Your task to perform on an android device: Clear the cart on bestbuy.com. Search for "duracell triple a" on bestbuy.com, select the first entry, and add it to the cart. Image 0: 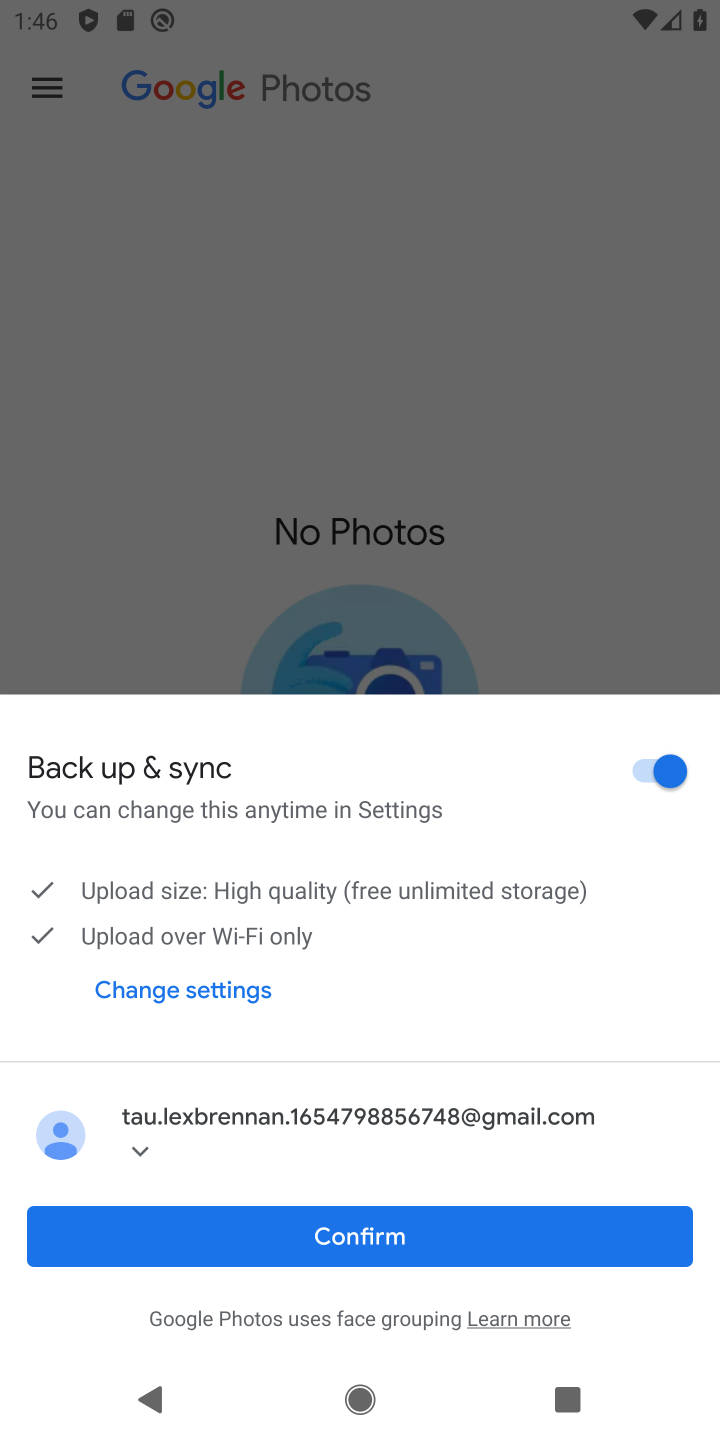
Step 0: press home button
Your task to perform on an android device: Clear the cart on bestbuy.com. Search for "duracell triple a" on bestbuy.com, select the first entry, and add it to the cart. Image 1: 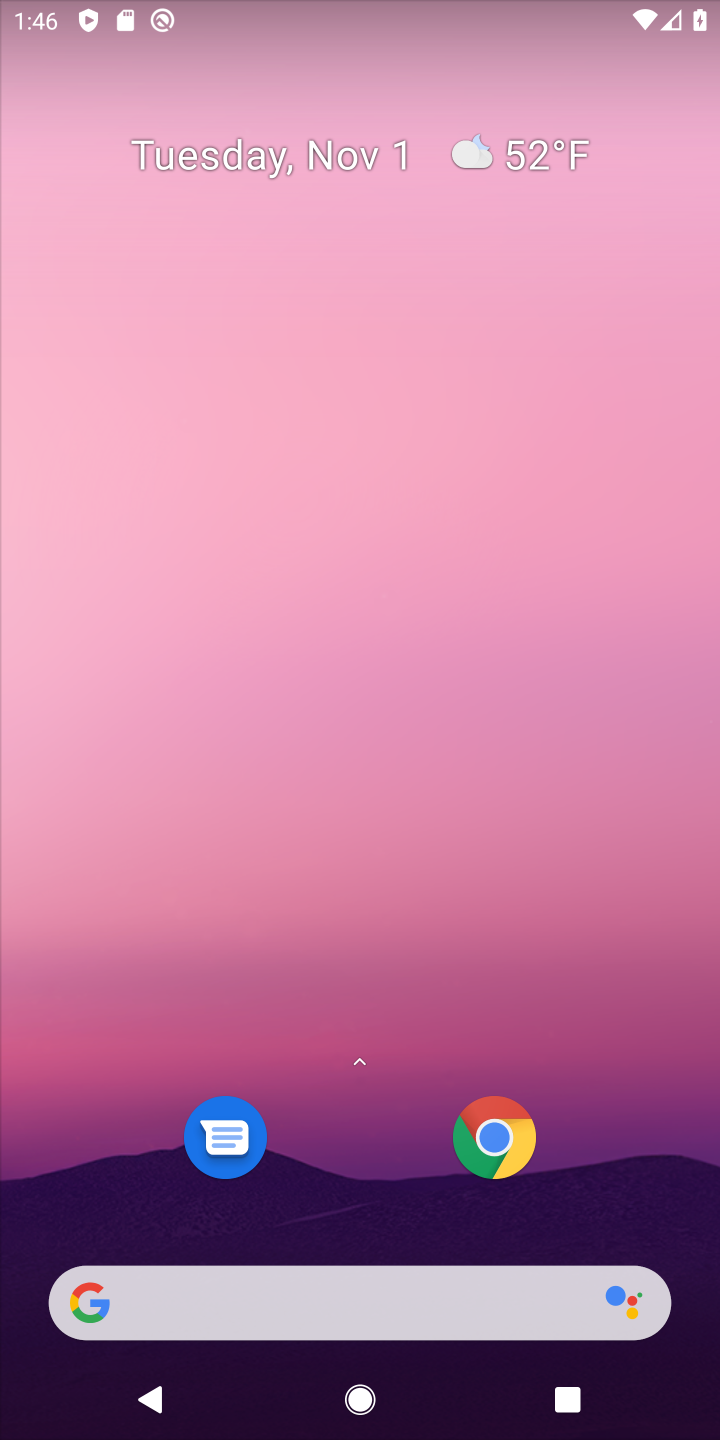
Step 1: click (470, 1291)
Your task to perform on an android device: Clear the cart on bestbuy.com. Search for "duracell triple a" on bestbuy.com, select the first entry, and add it to the cart. Image 2: 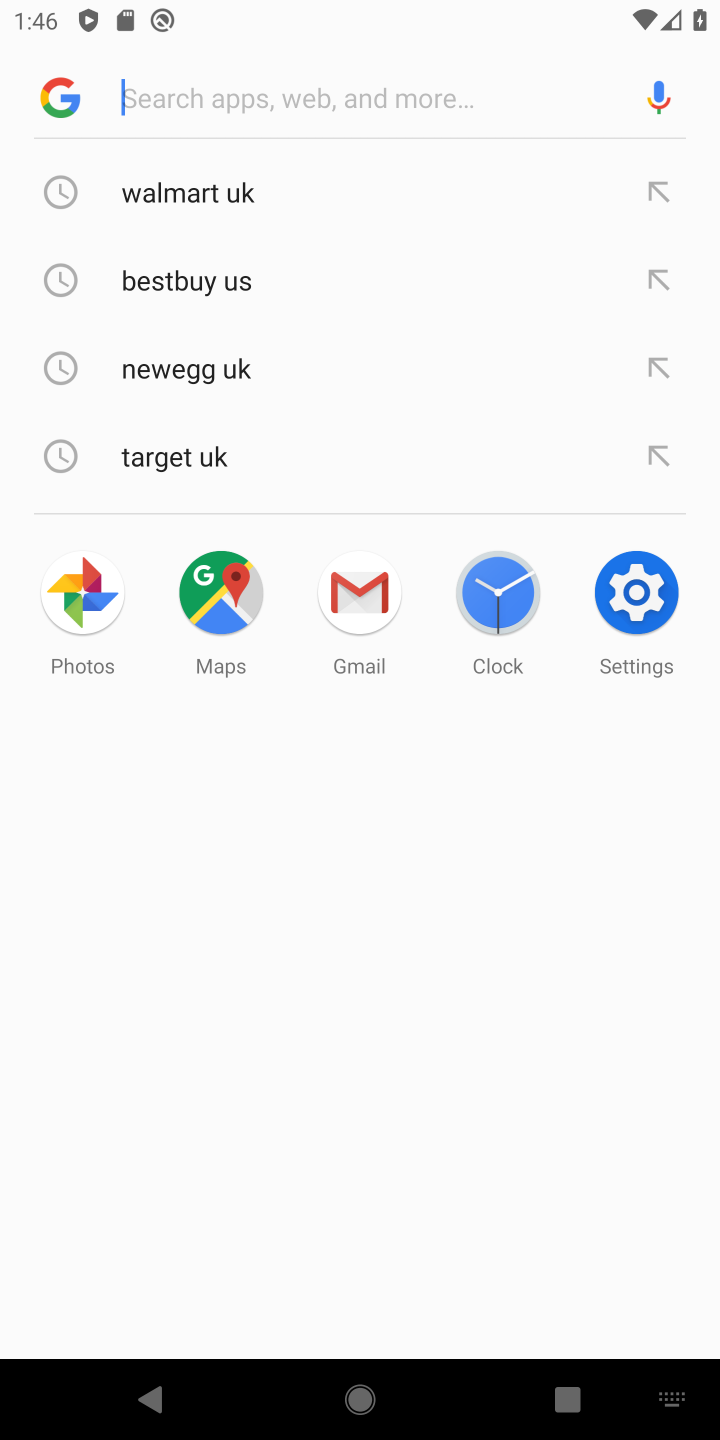
Step 2: type "bestbuy"
Your task to perform on an android device: Clear the cart on bestbuy.com. Search for "duracell triple a" on bestbuy.com, select the first entry, and add it to the cart. Image 3: 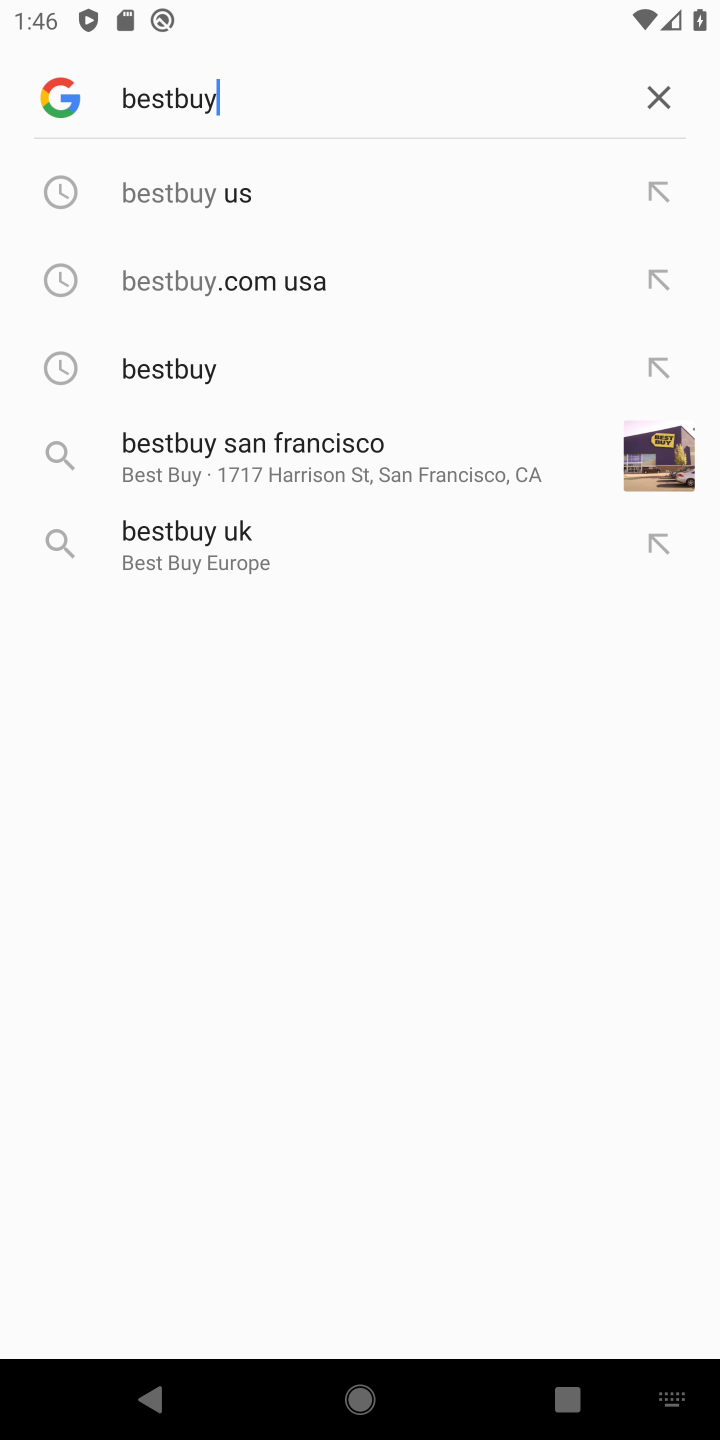
Step 3: click (195, 197)
Your task to perform on an android device: Clear the cart on bestbuy.com. Search for "duracell triple a" on bestbuy.com, select the first entry, and add it to the cart. Image 4: 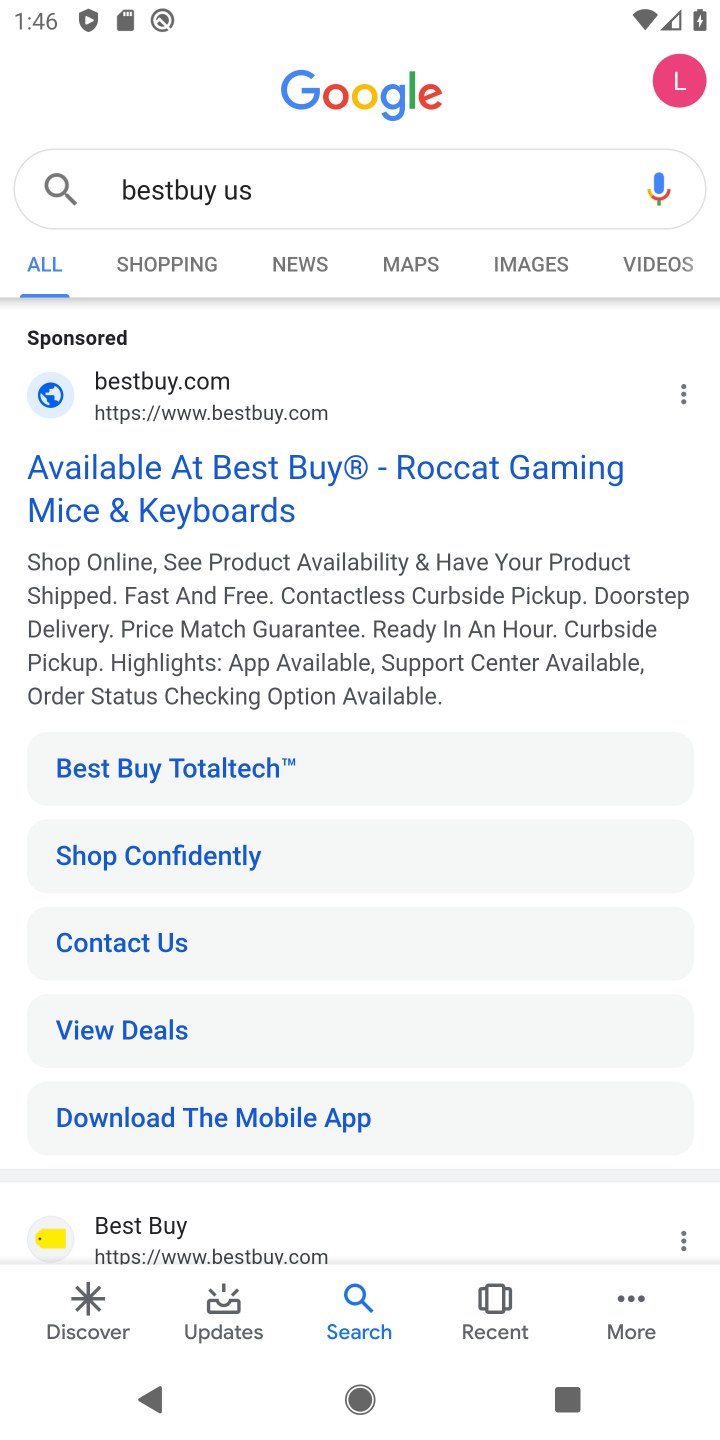
Step 4: click (155, 477)
Your task to perform on an android device: Clear the cart on bestbuy.com. Search for "duracell triple a" on bestbuy.com, select the first entry, and add it to the cart. Image 5: 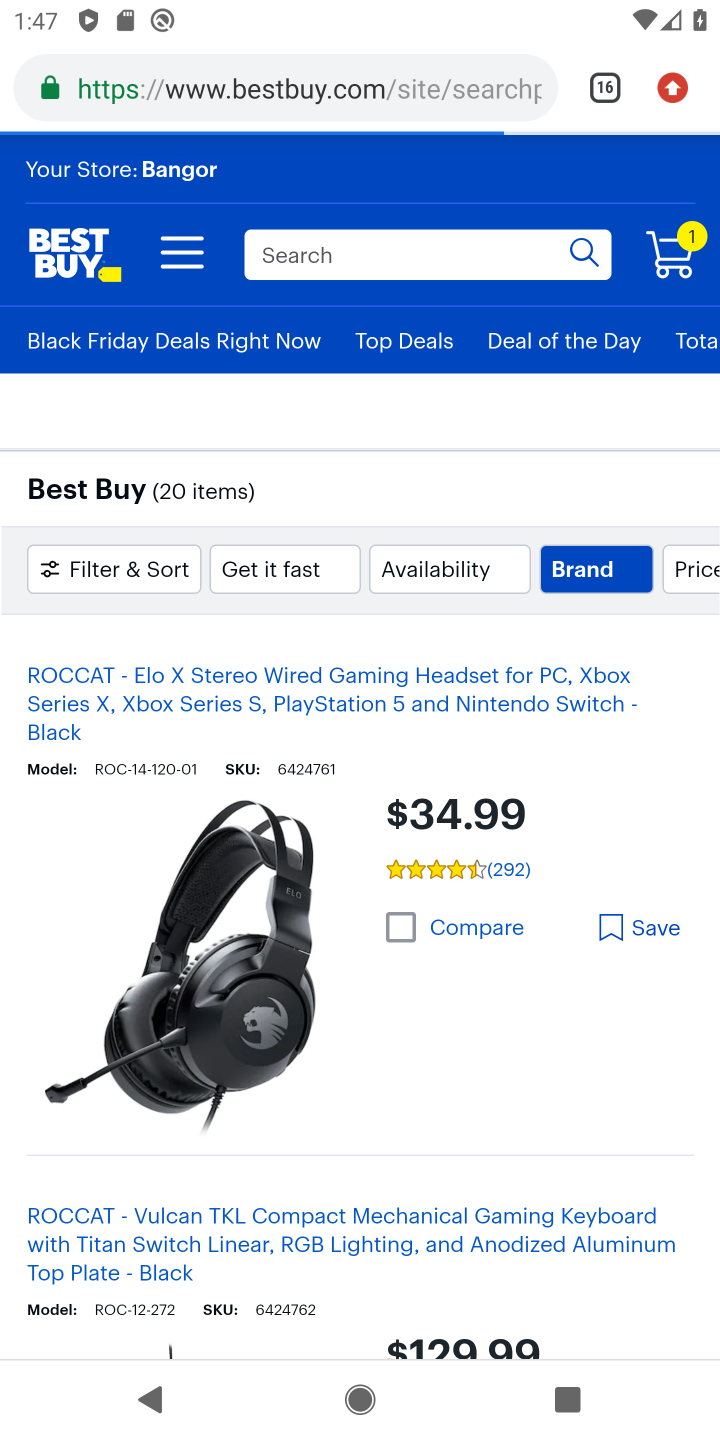
Step 5: click (395, 271)
Your task to perform on an android device: Clear the cart on bestbuy.com. Search for "duracell triple a" on bestbuy.com, select the first entry, and add it to the cart. Image 6: 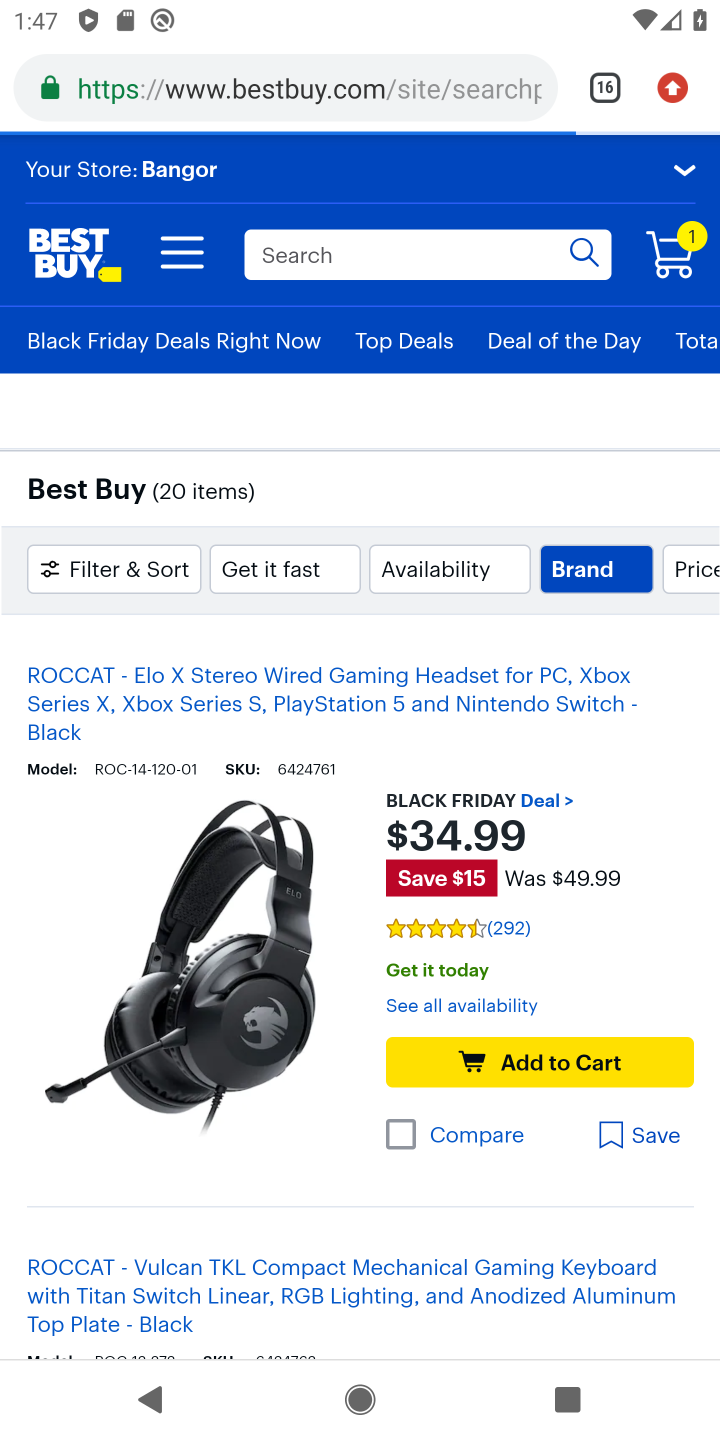
Step 6: type "duracell triple"
Your task to perform on an android device: Clear the cart on bestbuy.com. Search for "duracell triple a" on bestbuy.com, select the first entry, and add it to the cart. Image 7: 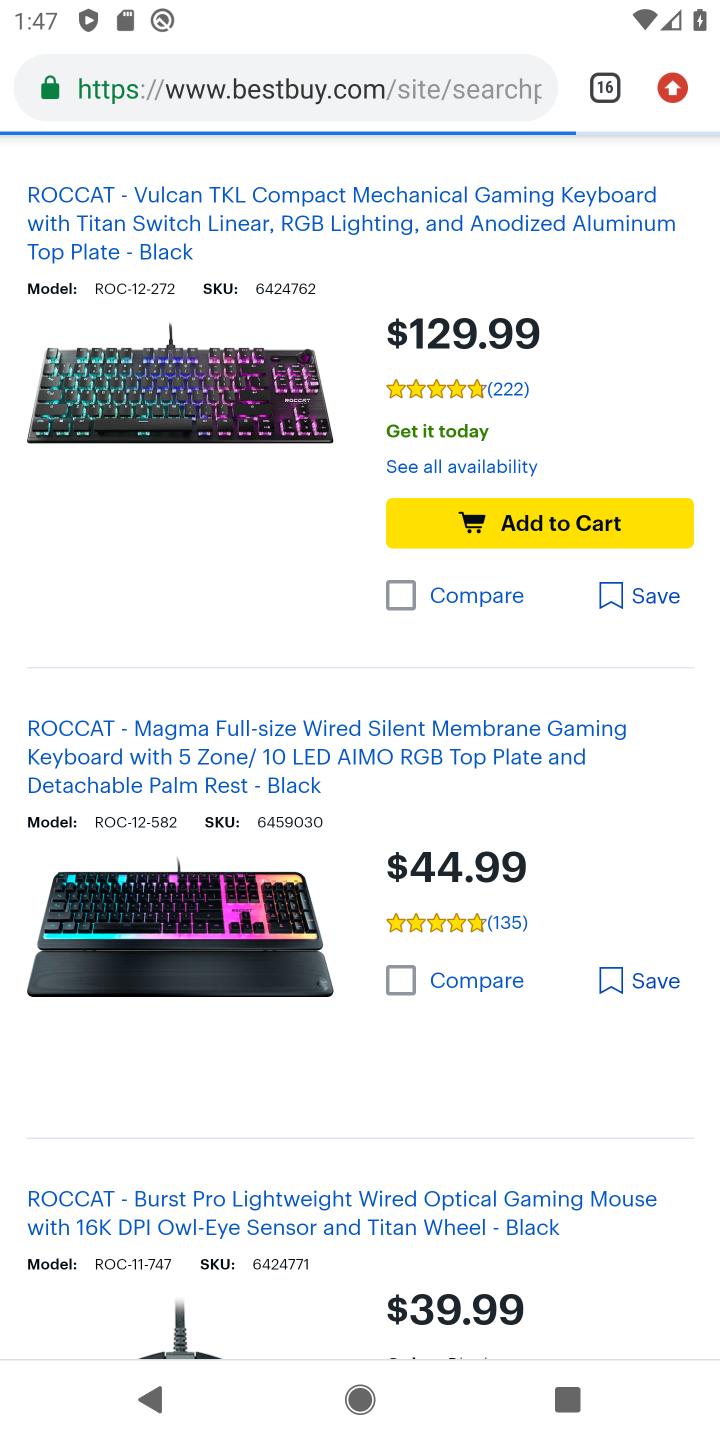
Step 7: click (567, 542)
Your task to perform on an android device: Clear the cart on bestbuy.com. Search for "duracell triple a" on bestbuy.com, select the first entry, and add it to the cart. Image 8: 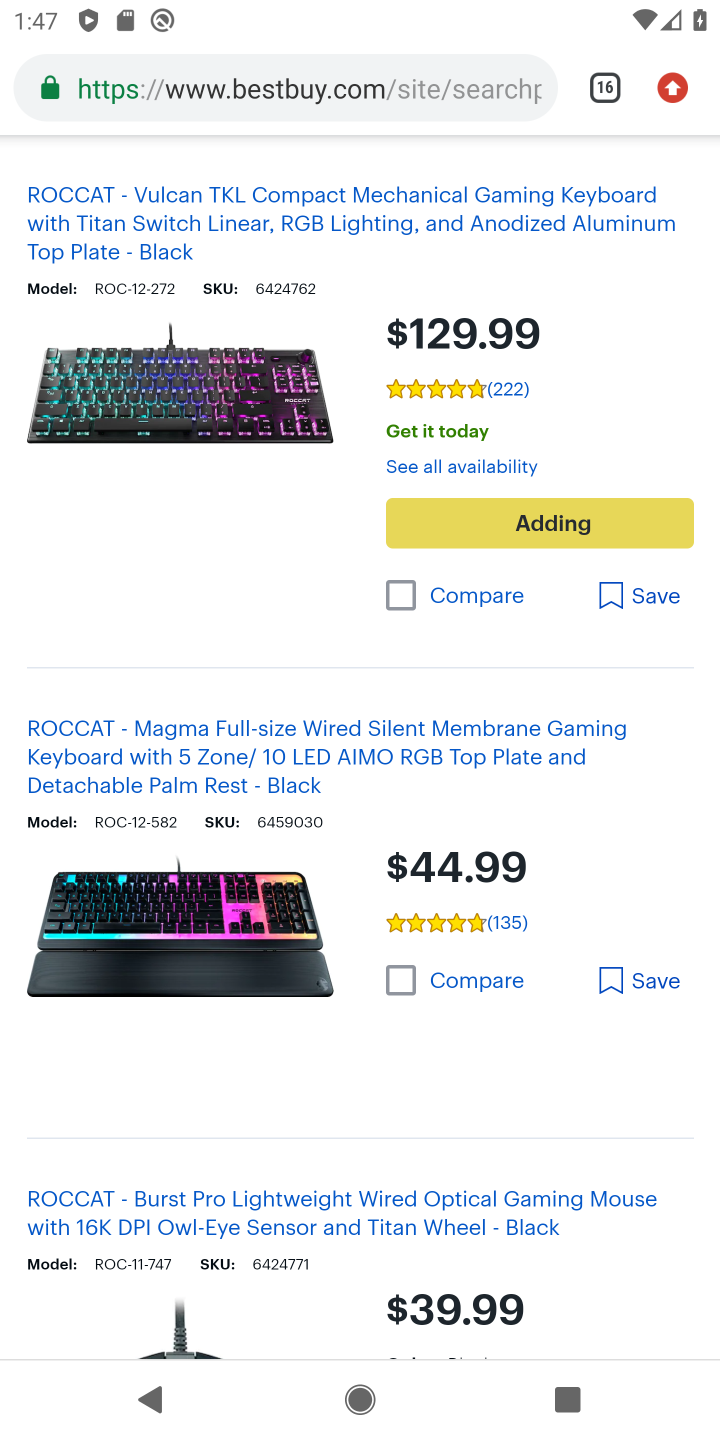
Step 8: task complete